Your task to perform on an android device: toggle notification dots Image 0: 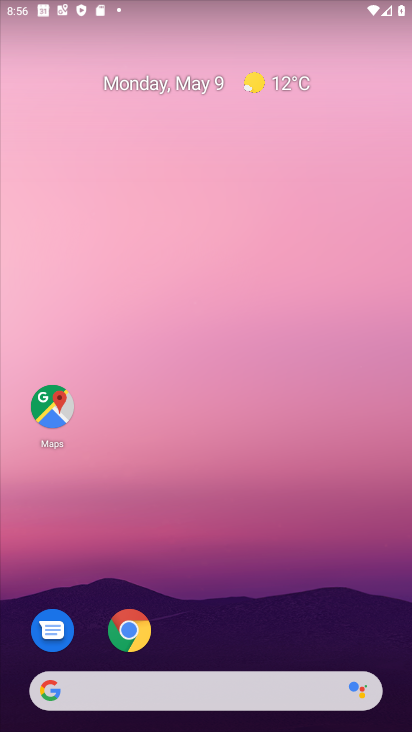
Step 0: drag from (150, 642) to (218, 378)
Your task to perform on an android device: toggle notification dots Image 1: 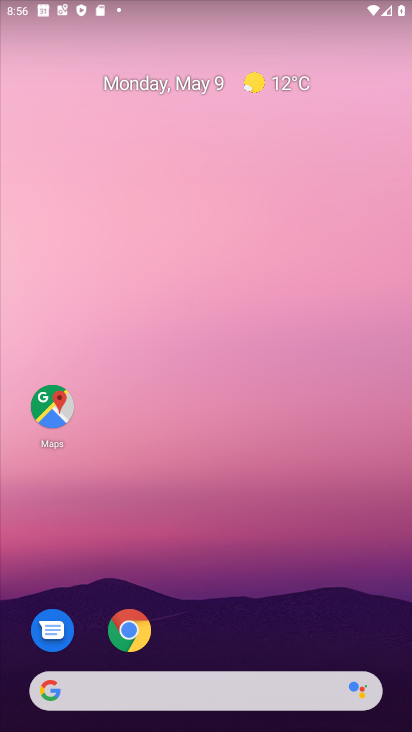
Step 1: drag from (232, 678) to (293, 387)
Your task to perform on an android device: toggle notification dots Image 2: 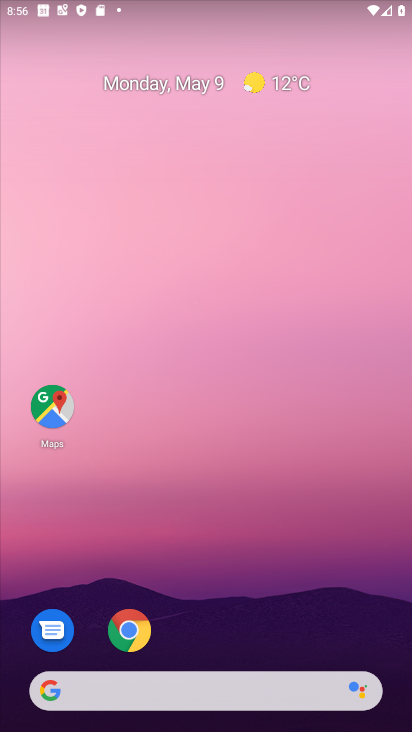
Step 2: drag from (149, 677) to (198, 179)
Your task to perform on an android device: toggle notification dots Image 3: 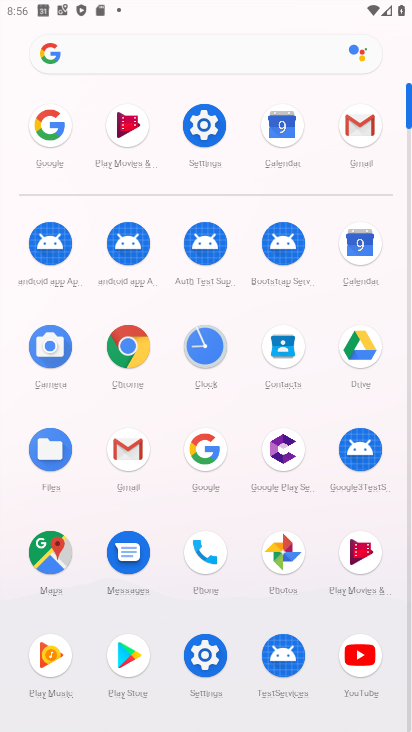
Step 3: click (198, 128)
Your task to perform on an android device: toggle notification dots Image 4: 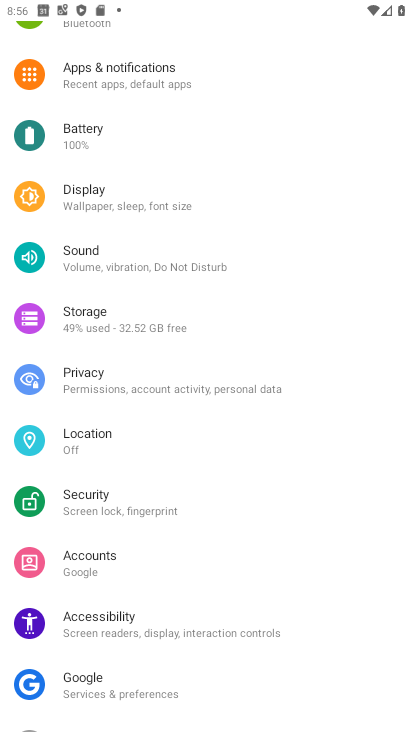
Step 4: click (124, 75)
Your task to perform on an android device: toggle notification dots Image 5: 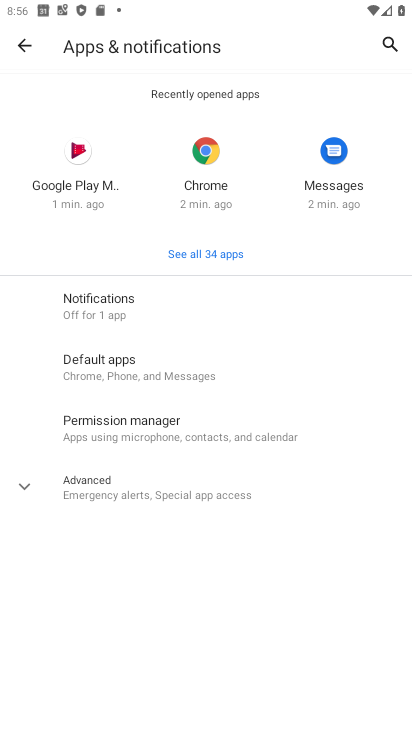
Step 5: click (95, 506)
Your task to perform on an android device: toggle notification dots Image 6: 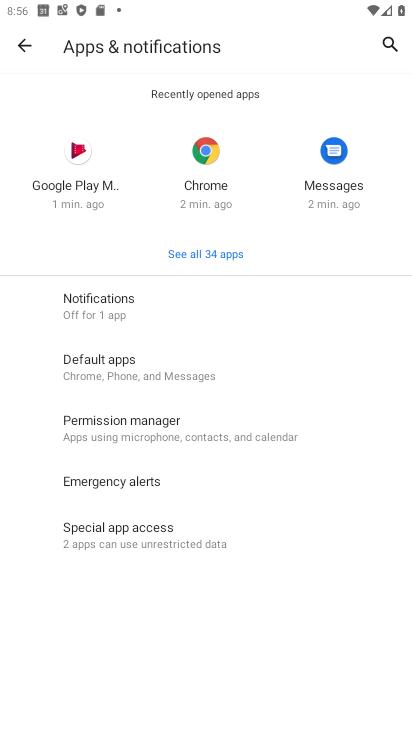
Step 6: click (99, 303)
Your task to perform on an android device: toggle notification dots Image 7: 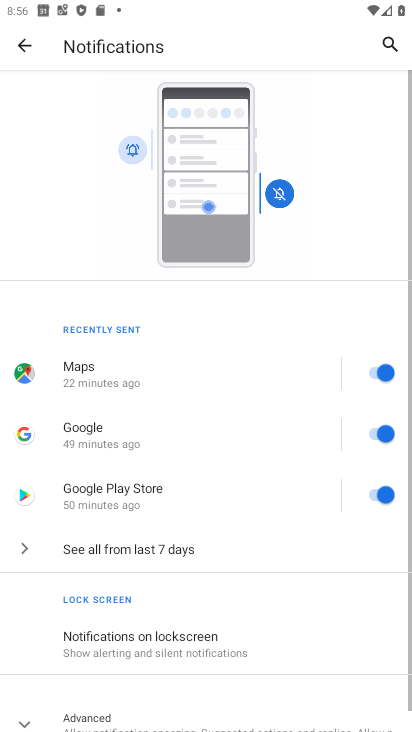
Step 7: drag from (187, 634) to (225, 294)
Your task to perform on an android device: toggle notification dots Image 8: 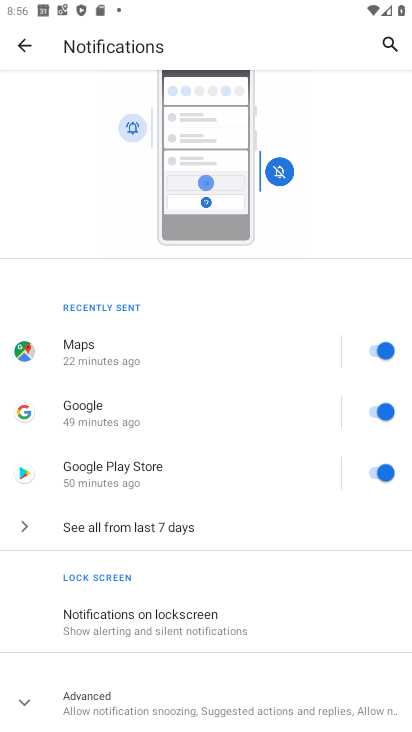
Step 8: click (75, 710)
Your task to perform on an android device: toggle notification dots Image 9: 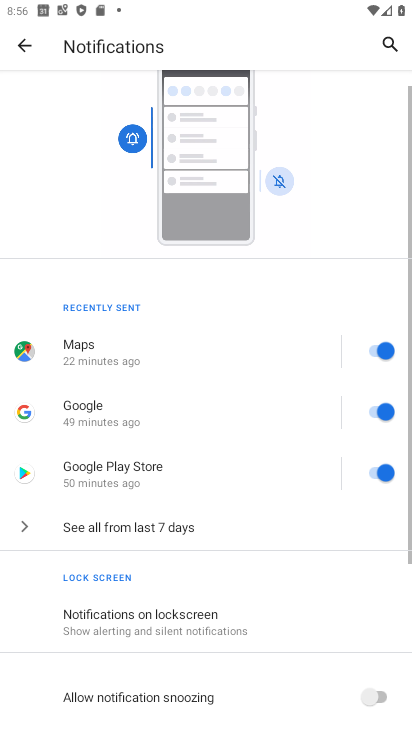
Step 9: drag from (157, 654) to (193, 330)
Your task to perform on an android device: toggle notification dots Image 10: 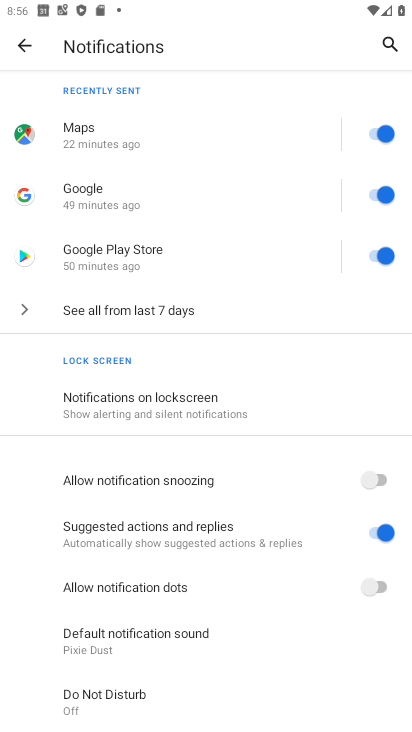
Step 10: click (379, 582)
Your task to perform on an android device: toggle notification dots Image 11: 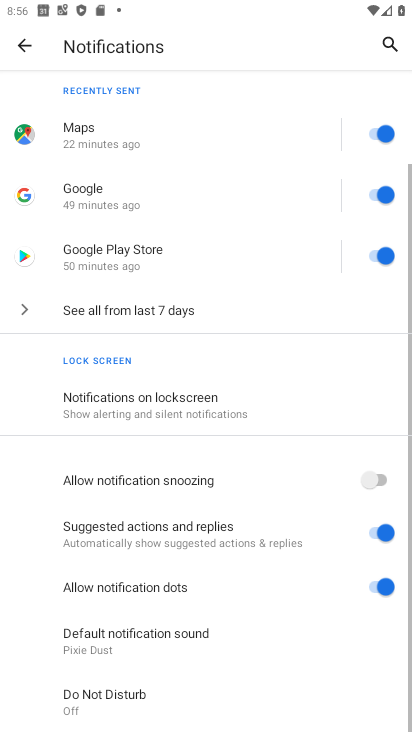
Step 11: task complete